Your task to perform on an android device: Set the phone to "Do not disturb". Image 0: 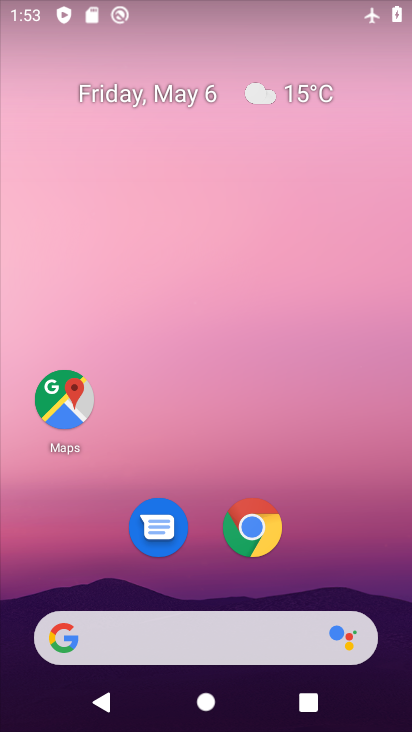
Step 0: drag from (355, 559) to (107, 80)
Your task to perform on an android device: Set the phone to "Do not disturb". Image 1: 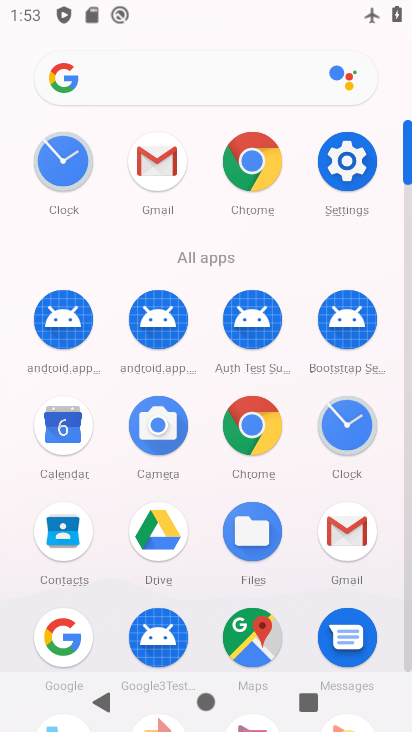
Step 1: click (352, 156)
Your task to perform on an android device: Set the phone to "Do not disturb". Image 2: 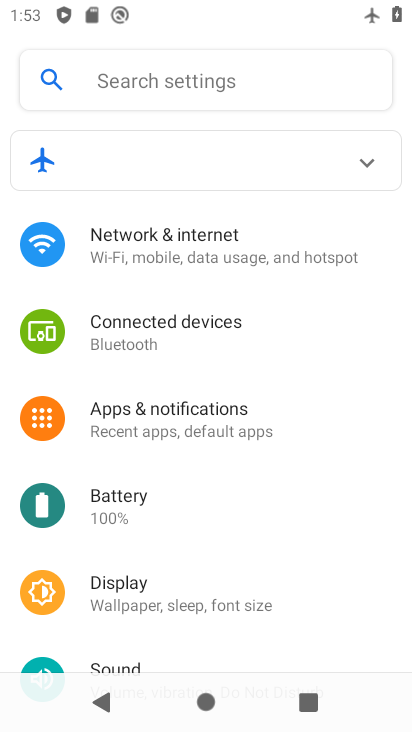
Step 2: drag from (170, 635) to (184, 298)
Your task to perform on an android device: Set the phone to "Do not disturb". Image 3: 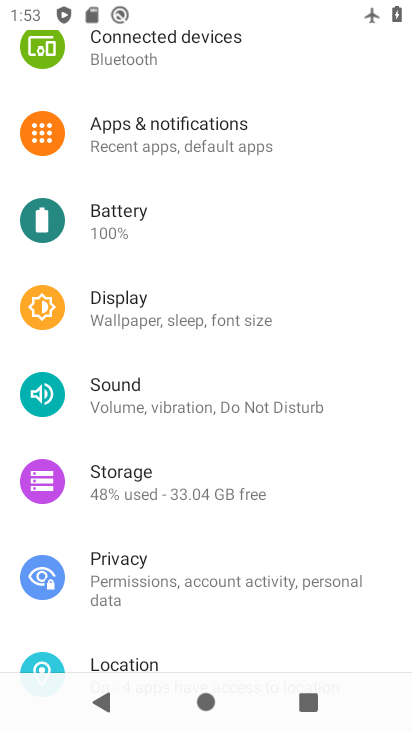
Step 3: click (154, 385)
Your task to perform on an android device: Set the phone to "Do not disturb". Image 4: 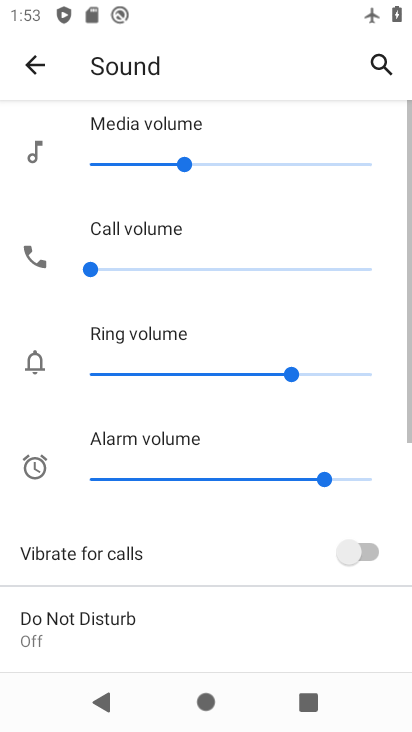
Step 4: drag from (144, 620) to (136, 188)
Your task to perform on an android device: Set the phone to "Do not disturb". Image 5: 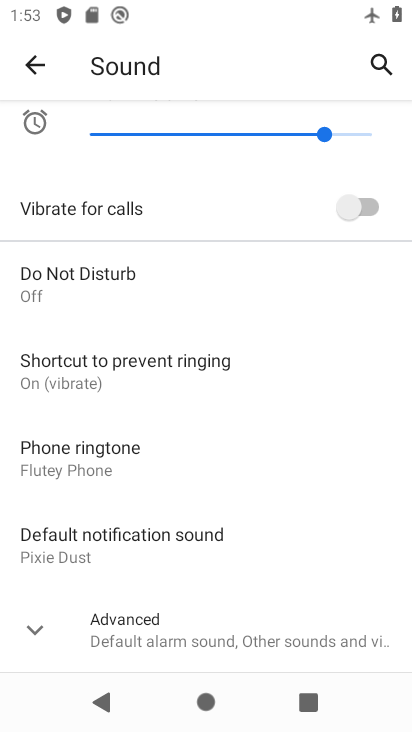
Step 5: drag from (80, 636) to (91, 290)
Your task to perform on an android device: Set the phone to "Do not disturb". Image 6: 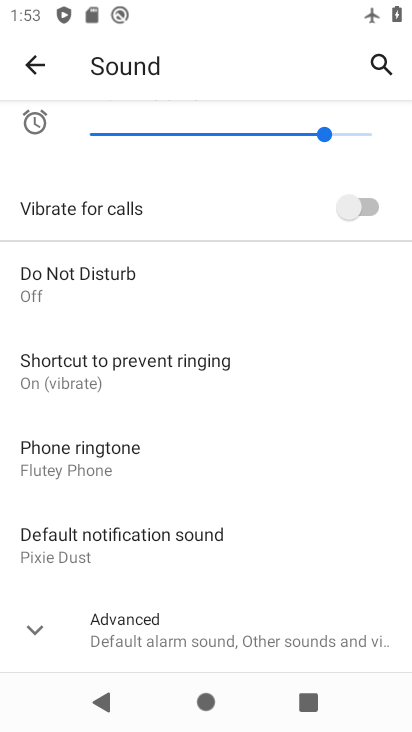
Step 6: click (71, 284)
Your task to perform on an android device: Set the phone to "Do not disturb". Image 7: 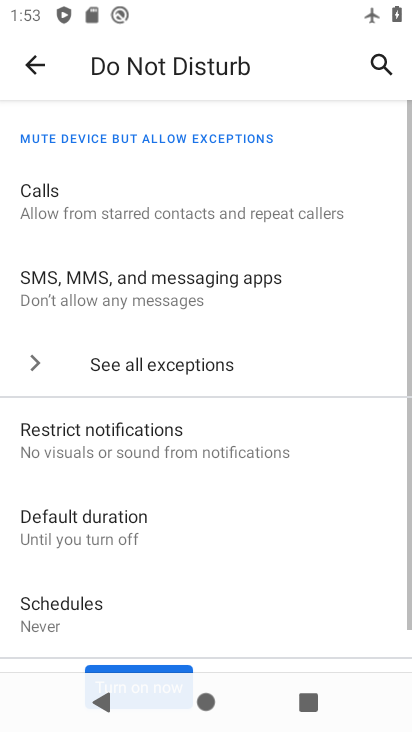
Step 7: drag from (171, 619) to (153, 141)
Your task to perform on an android device: Set the phone to "Do not disturb". Image 8: 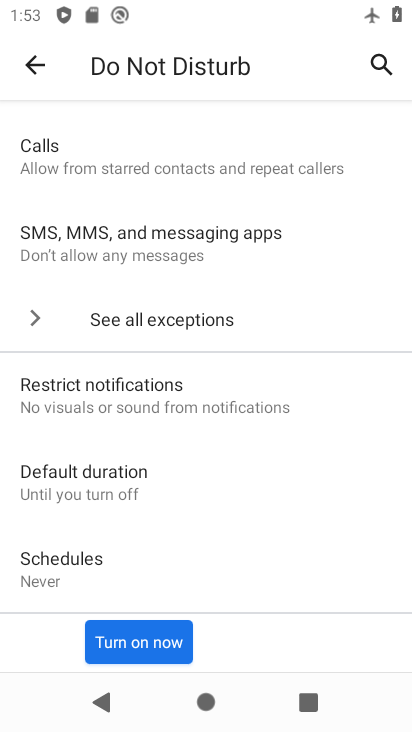
Step 8: click (111, 648)
Your task to perform on an android device: Set the phone to "Do not disturb". Image 9: 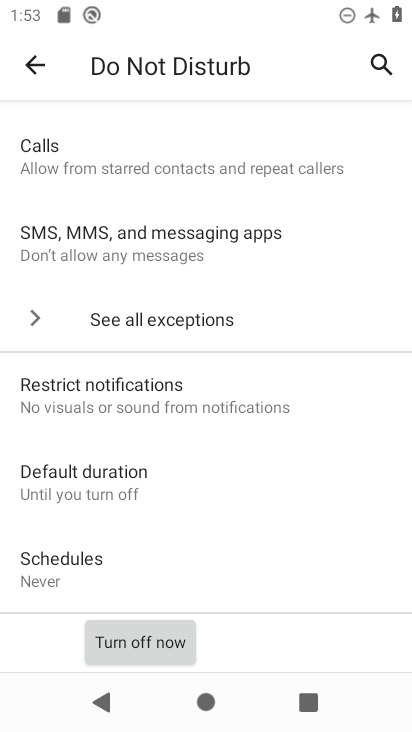
Step 9: task complete